Your task to perform on an android device: change your default location settings in chrome Image 0: 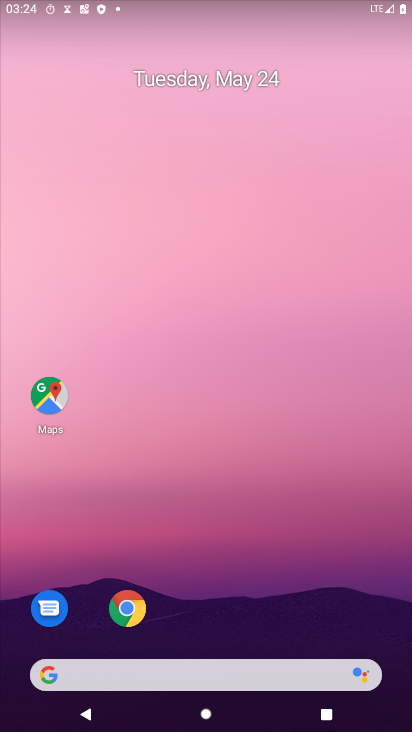
Step 0: drag from (285, 621) to (196, 244)
Your task to perform on an android device: change your default location settings in chrome Image 1: 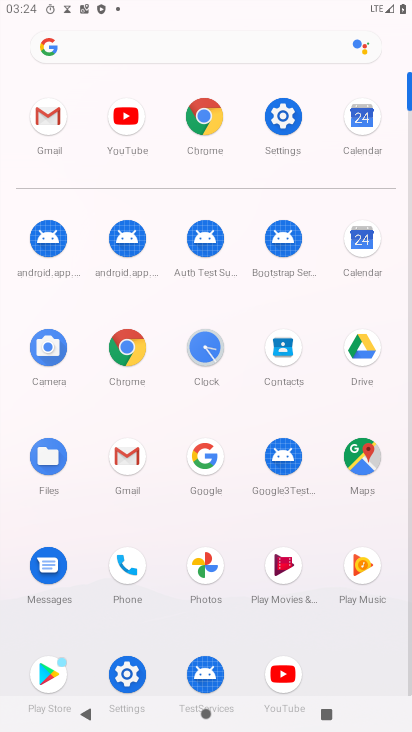
Step 1: click (207, 115)
Your task to perform on an android device: change your default location settings in chrome Image 2: 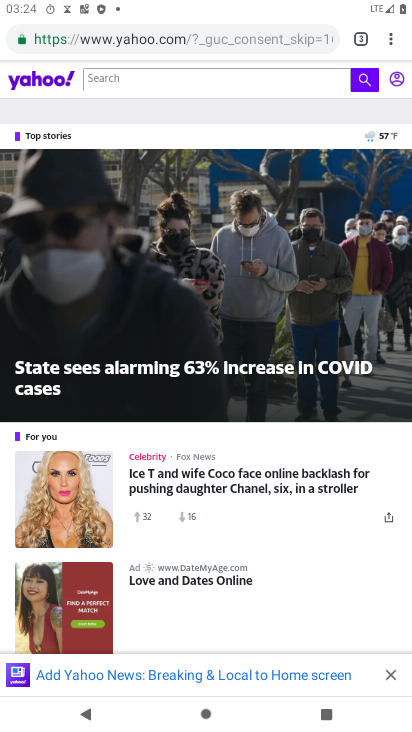
Step 2: click (392, 34)
Your task to perform on an android device: change your default location settings in chrome Image 3: 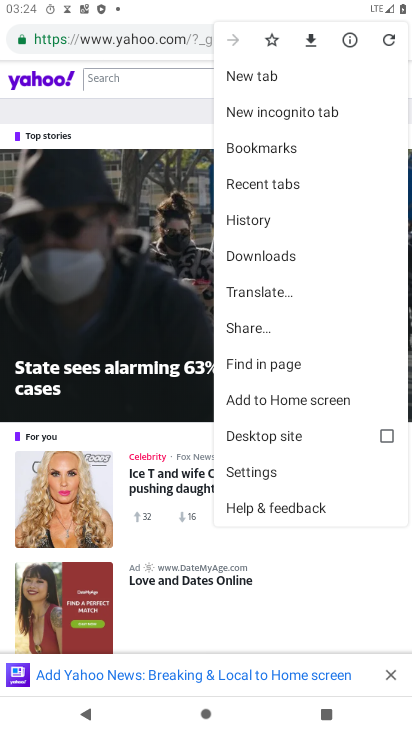
Step 3: click (299, 472)
Your task to perform on an android device: change your default location settings in chrome Image 4: 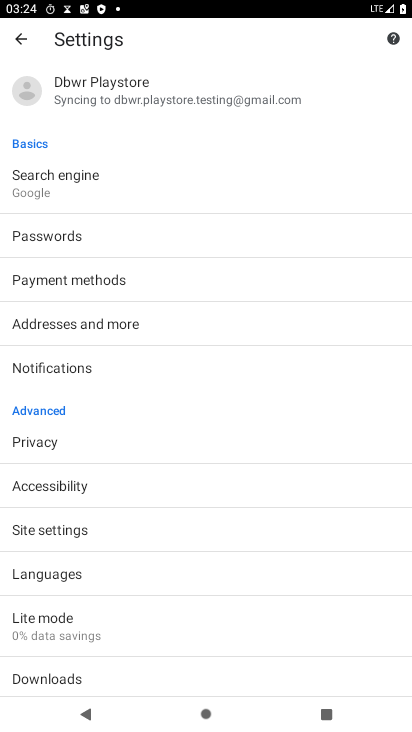
Step 4: click (135, 541)
Your task to perform on an android device: change your default location settings in chrome Image 5: 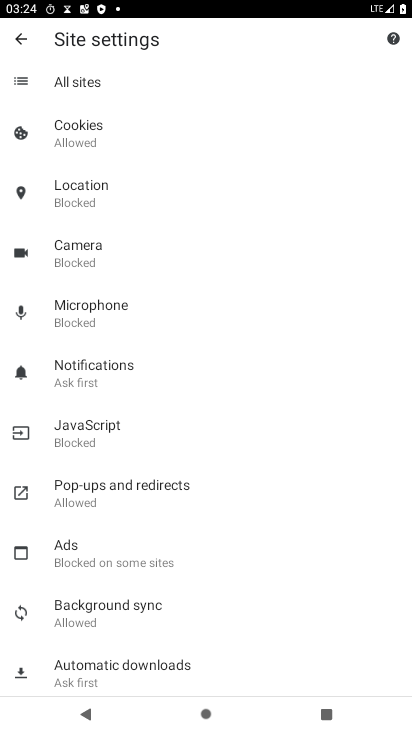
Step 5: click (140, 205)
Your task to perform on an android device: change your default location settings in chrome Image 6: 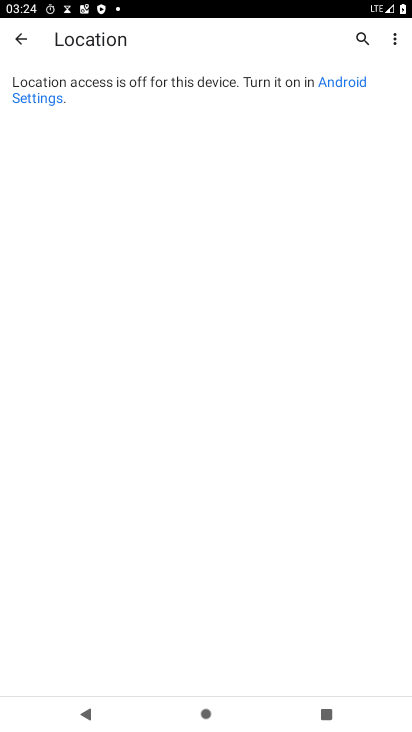
Step 6: task complete